Your task to perform on an android device: see creations saved in the google photos Image 0: 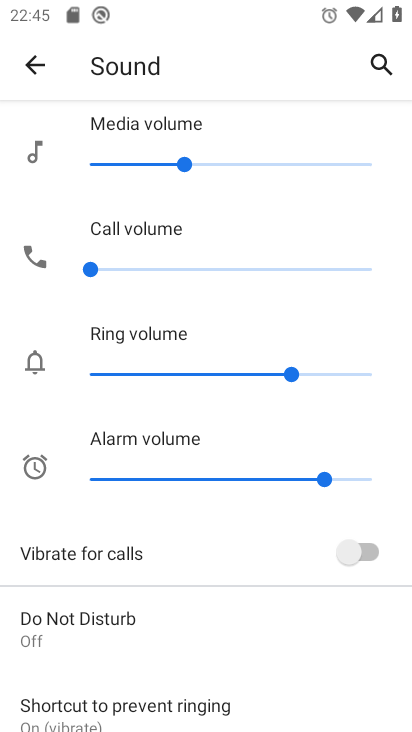
Step 0: press home button
Your task to perform on an android device: see creations saved in the google photos Image 1: 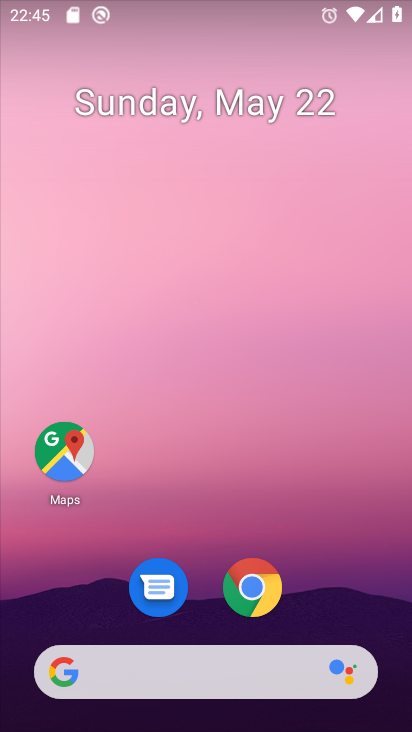
Step 1: drag from (208, 503) to (217, 10)
Your task to perform on an android device: see creations saved in the google photos Image 2: 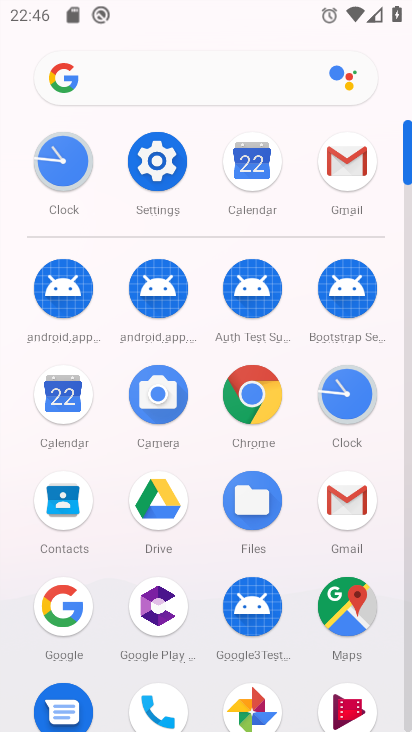
Step 2: click (256, 700)
Your task to perform on an android device: see creations saved in the google photos Image 3: 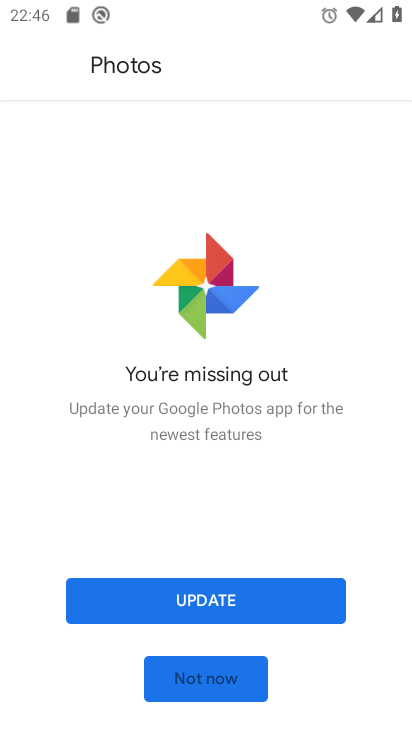
Step 3: click (254, 673)
Your task to perform on an android device: see creations saved in the google photos Image 4: 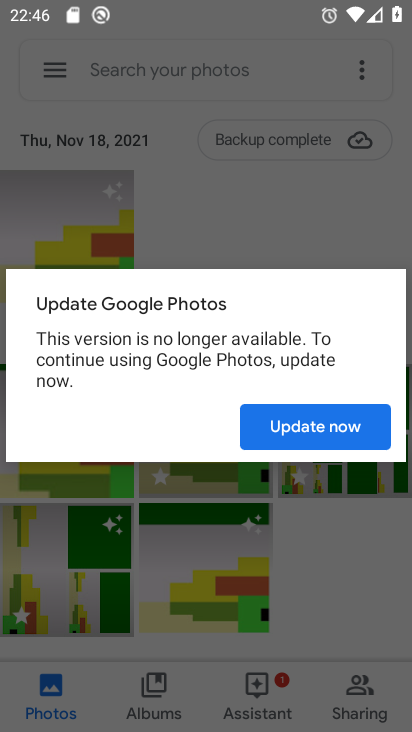
Step 4: click (348, 425)
Your task to perform on an android device: see creations saved in the google photos Image 5: 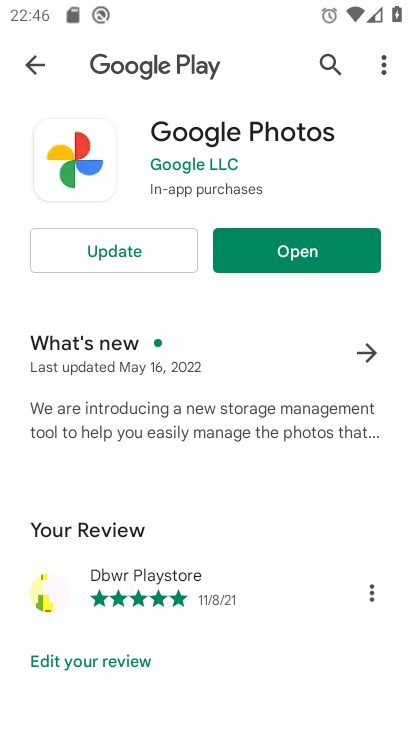
Step 5: click (284, 250)
Your task to perform on an android device: see creations saved in the google photos Image 6: 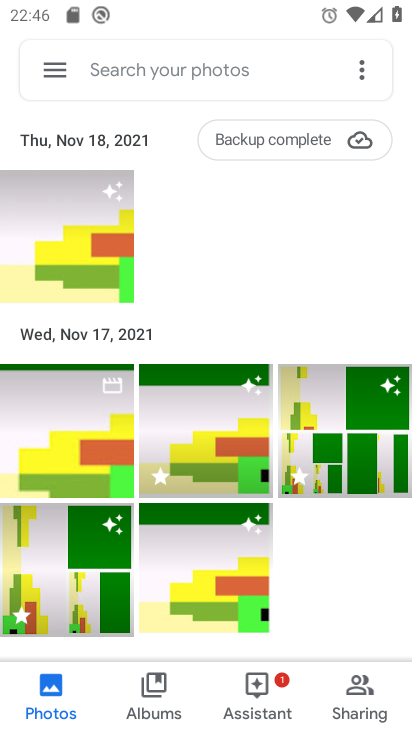
Step 6: click (269, 57)
Your task to perform on an android device: see creations saved in the google photos Image 7: 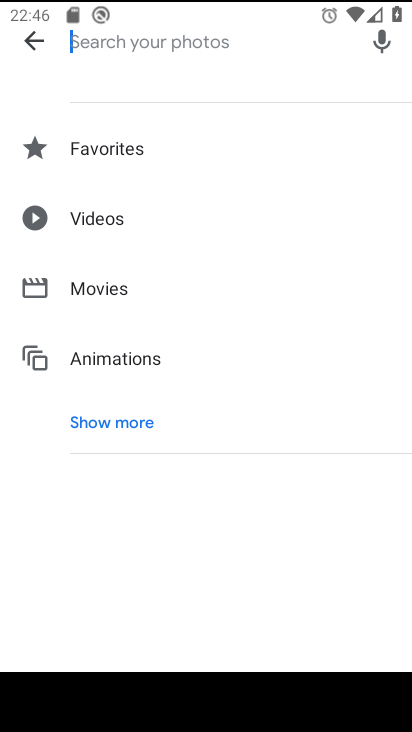
Step 7: click (123, 416)
Your task to perform on an android device: see creations saved in the google photos Image 8: 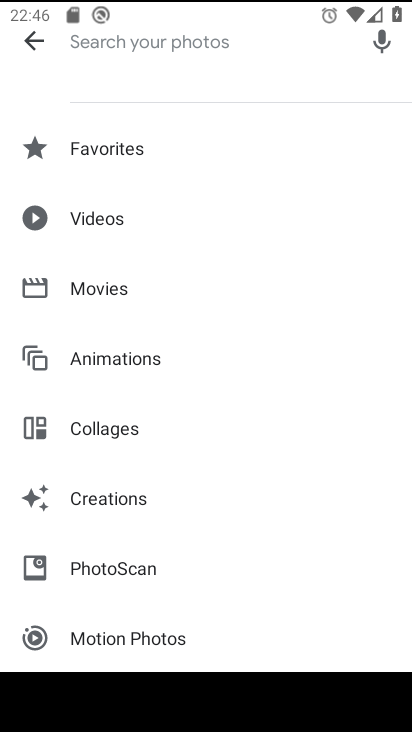
Step 8: click (96, 498)
Your task to perform on an android device: see creations saved in the google photos Image 9: 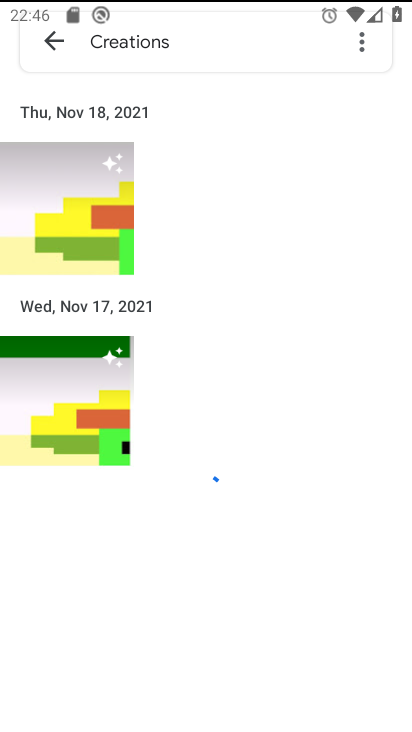
Step 9: task complete